Your task to perform on an android device: Go to Google Image 0: 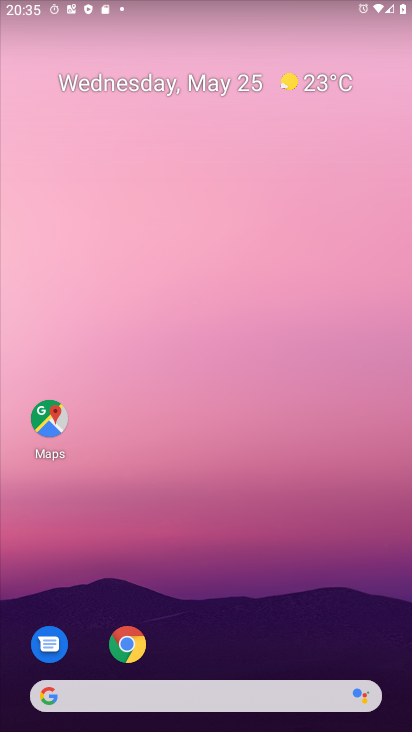
Step 0: drag from (255, 703) to (297, 110)
Your task to perform on an android device: Go to Google Image 1: 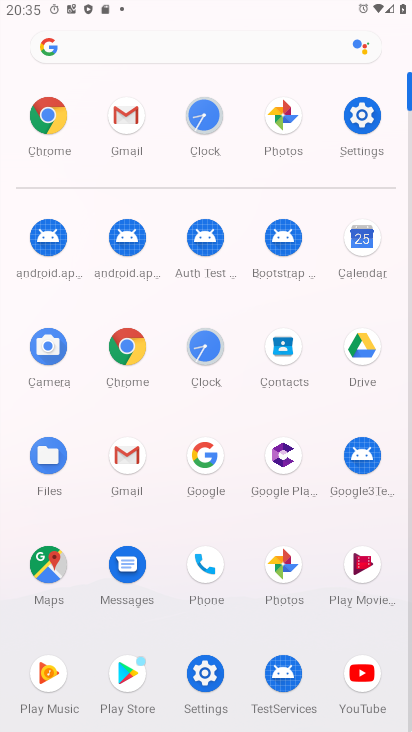
Step 1: click (44, 51)
Your task to perform on an android device: Go to Google Image 2: 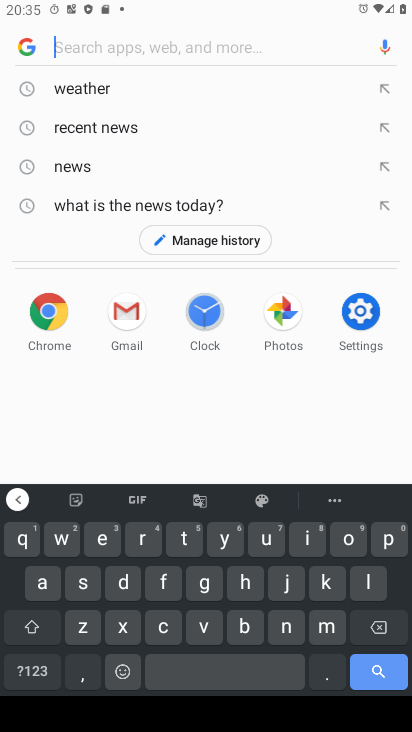
Step 2: click (26, 44)
Your task to perform on an android device: Go to Google Image 3: 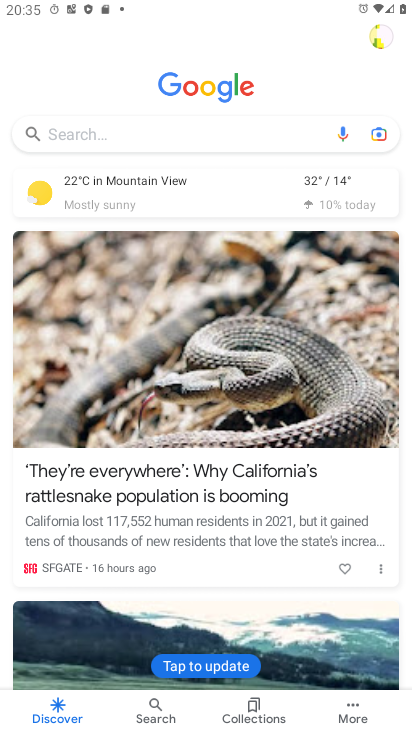
Step 3: task complete